Your task to perform on an android device: What's on my calendar today? Image 0: 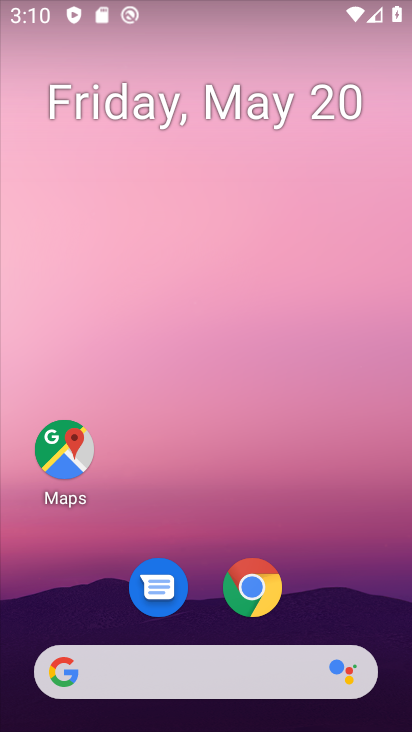
Step 0: drag from (385, 597) to (320, 87)
Your task to perform on an android device: What's on my calendar today? Image 1: 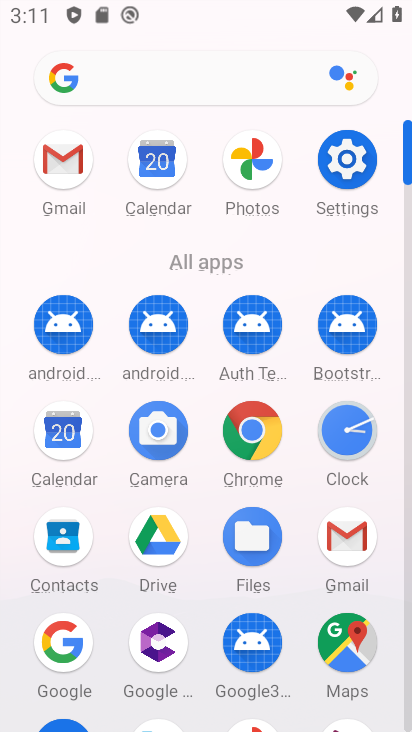
Step 1: click (52, 415)
Your task to perform on an android device: What's on my calendar today? Image 2: 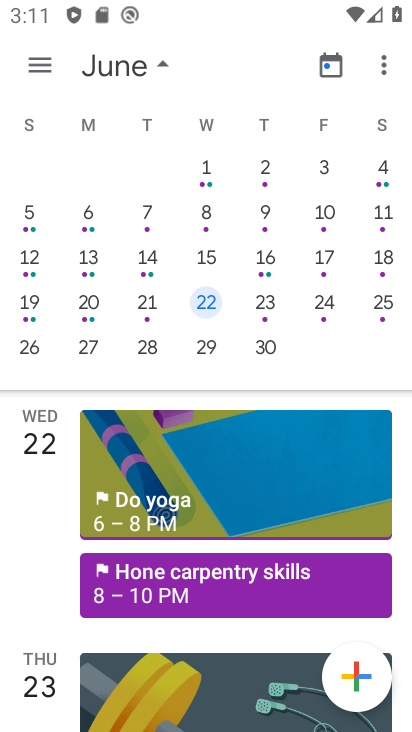
Step 2: click (28, 166)
Your task to perform on an android device: What's on my calendar today? Image 3: 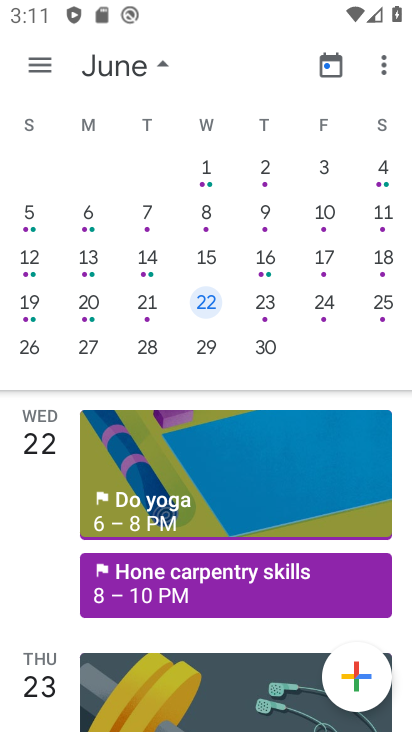
Step 3: drag from (56, 188) to (395, 246)
Your task to perform on an android device: What's on my calendar today? Image 4: 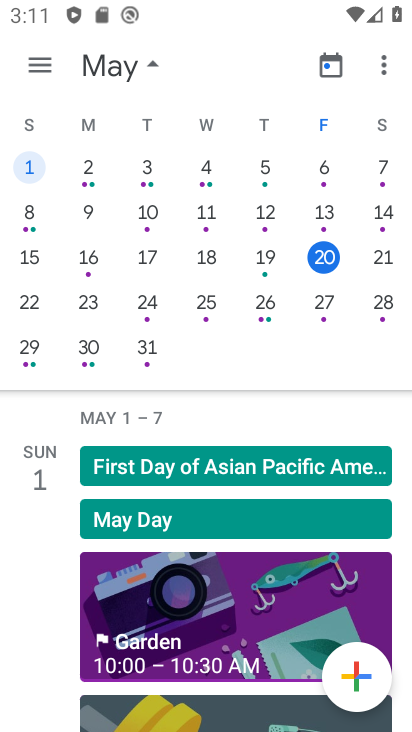
Step 4: click (35, 61)
Your task to perform on an android device: What's on my calendar today? Image 5: 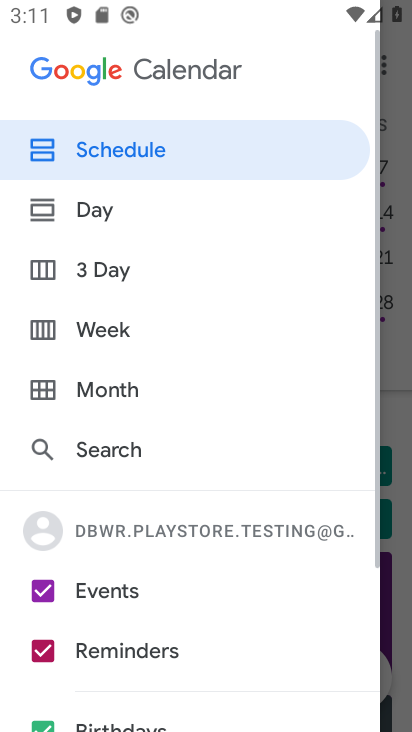
Step 5: click (81, 149)
Your task to perform on an android device: What's on my calendar today? Image 6: 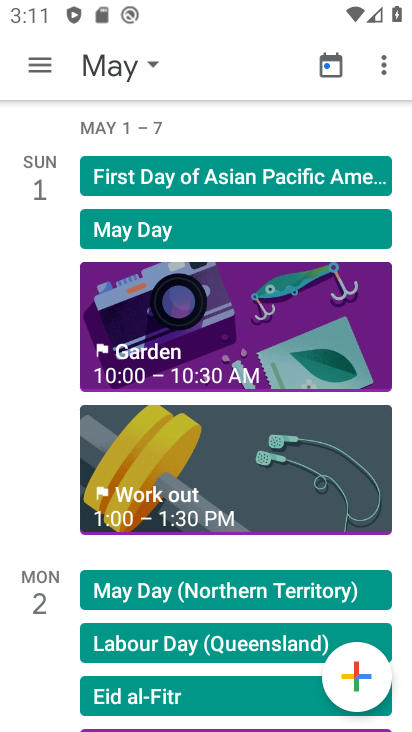
Step 6: task complete